Your task to perform on an android device: turn vacation reply on in the gmail app Image 0: 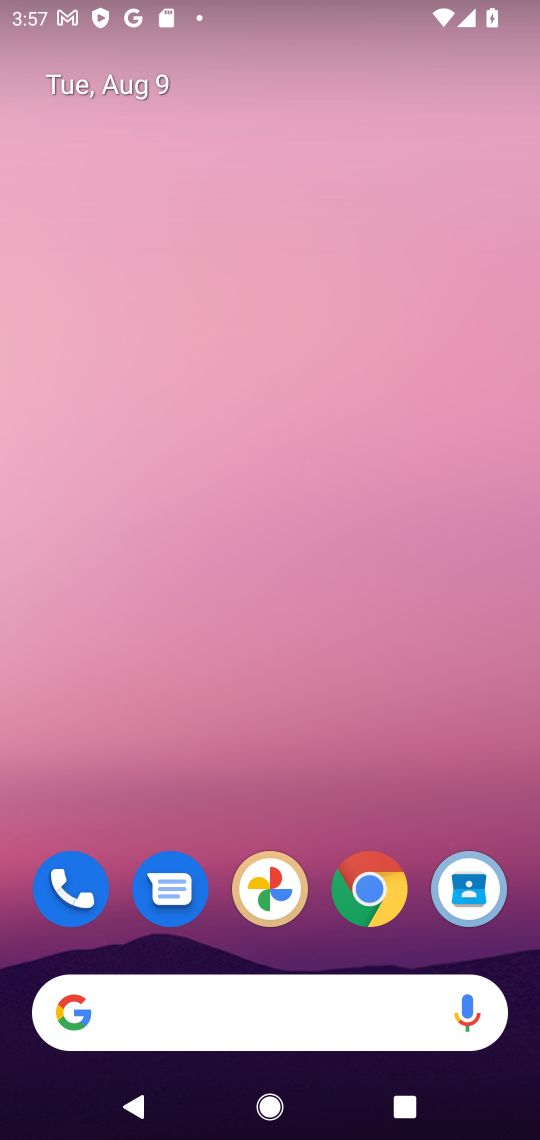
Step 0: drag from (265, 764) to (370, 0)
Your task to perform on an android device: turn vacation reply on in the gmail app Image 1: 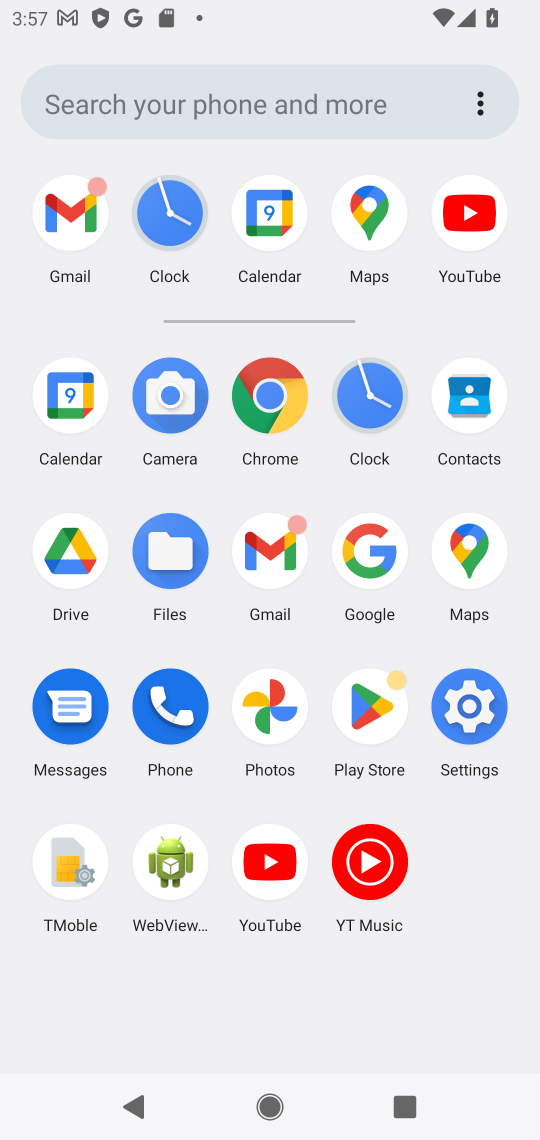
Step 1: click (280, 549)
Your task to perform on an android device: turn vacation reply on in the gmail app Image 2: 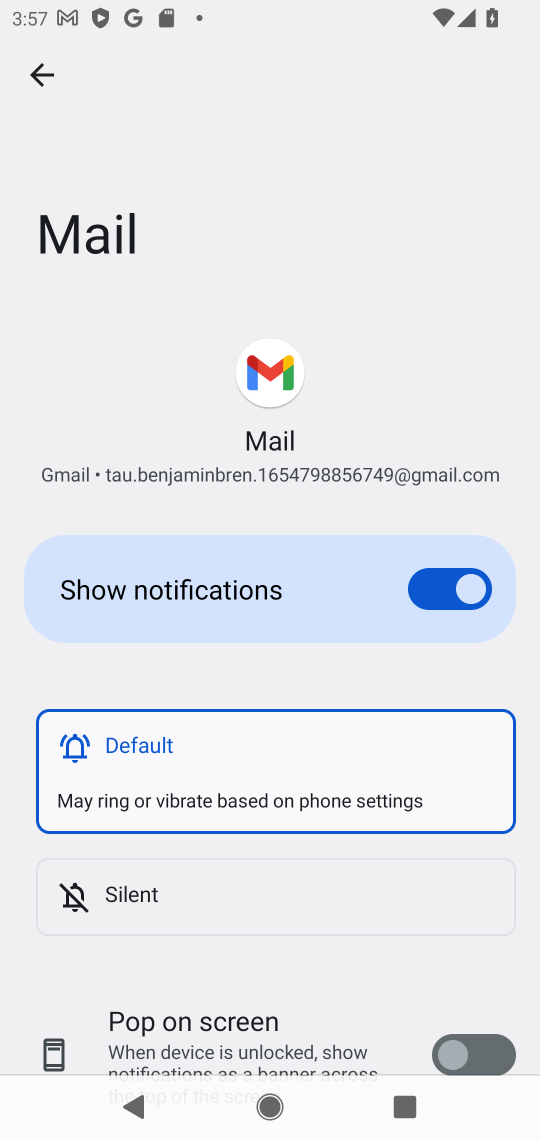
Step 2: click (44, 59)
Your task to perform on an android device: turn vacation reply on in the gmail app Image 3: 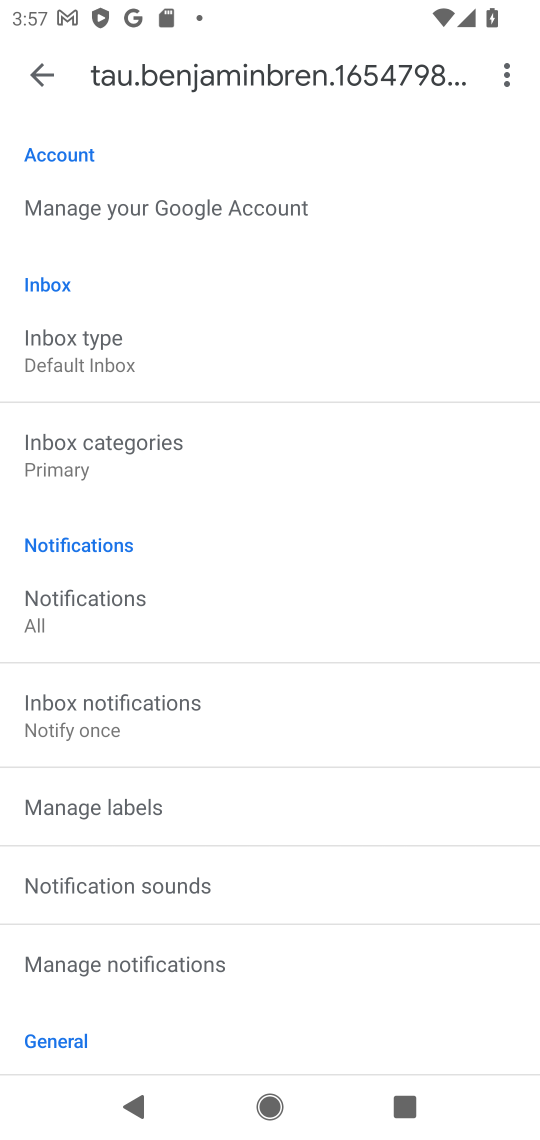
Step 3: drag from (327, 968) to (368, 112)
Your task to perform on an android device: turn vacation reply on in the gmail app Image 4: 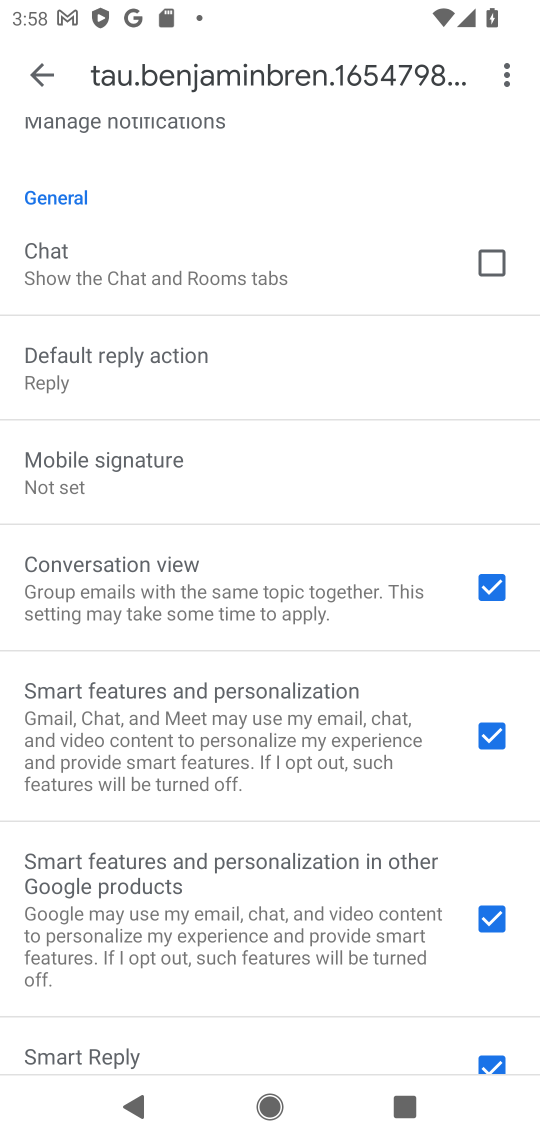
Step 4: drag from (284, 989) to (352, 189)
Your task to perform on an android device: turn vacation reply on in the gmail app Image 5: 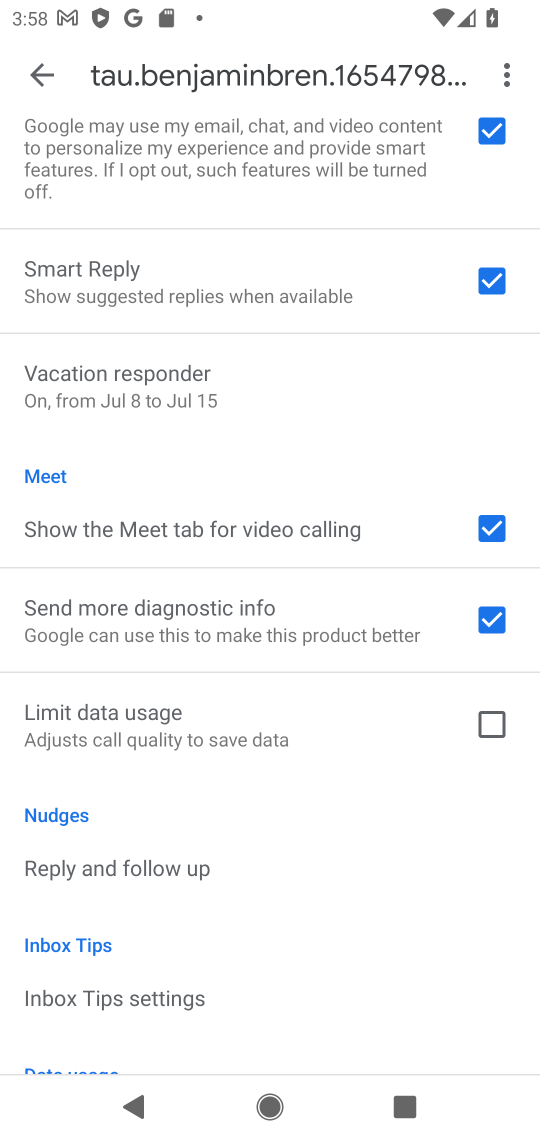
Step 5: click (258, 387)
Your task to perform on an android device: turn vacation reply on in the gmail app Image 6: 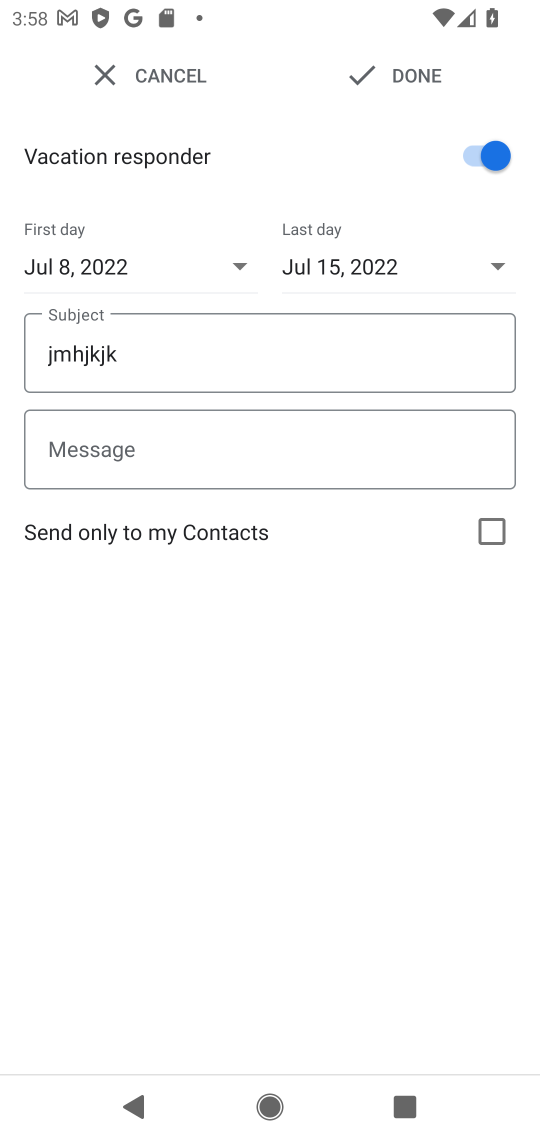
Step 6: task complete